Your task to perform on an android device: turn pop-ups on in chrome Image 0: 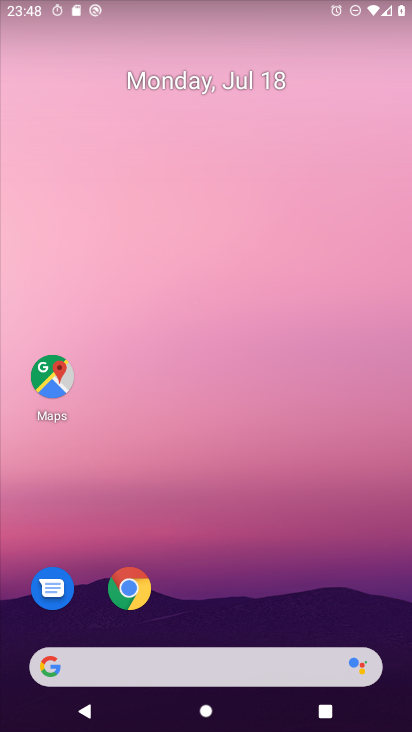
Step 0: press home button
Your task to perform on an android device: turn pop-ups on in chrome Image 1: 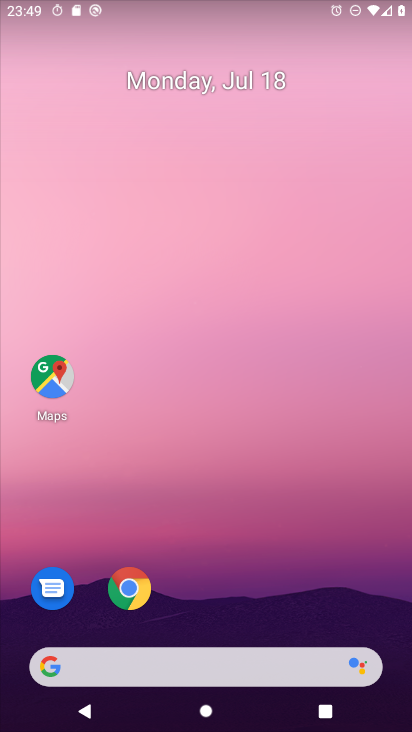
Step 1: click (133, 590)
Your task to perform on an android device: turn pop-ups on in chrome Image 2: 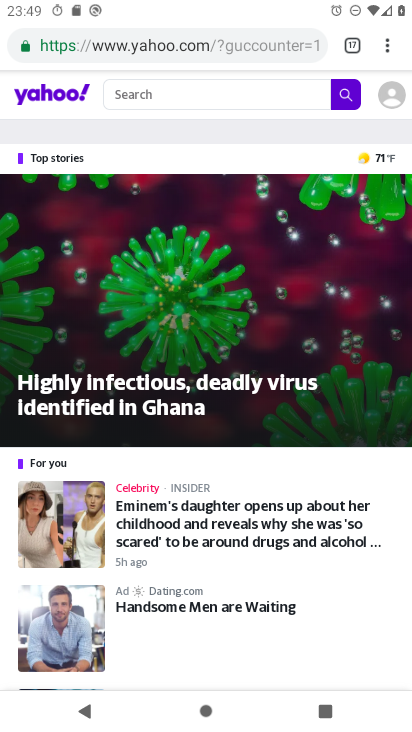
Step 2: drag from (386, 45) to (295, 547)
Your task to perform on an android device: turn pop-ups on in chrome Image 3: 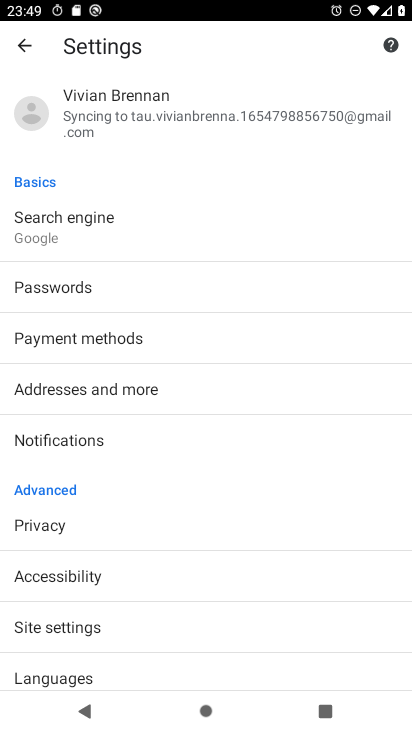
Step 3: click (91, 627)
Your task to perform on an android device: turn pop-ups on in chrome Image 4: 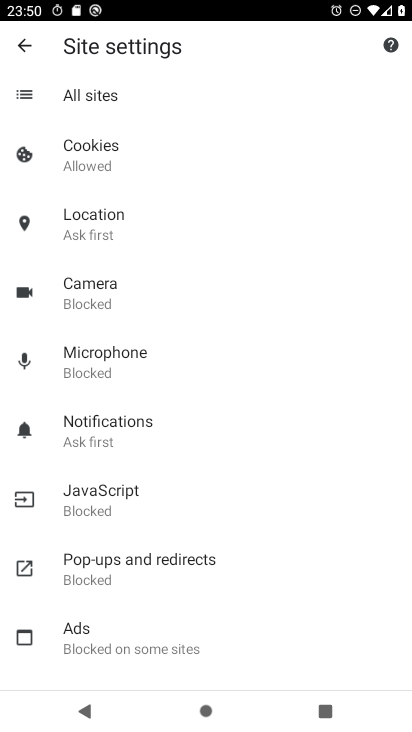
Step 4: click (103, 504)
Your task to perform on an android device: turn pop-ups on in chrome Image 5: 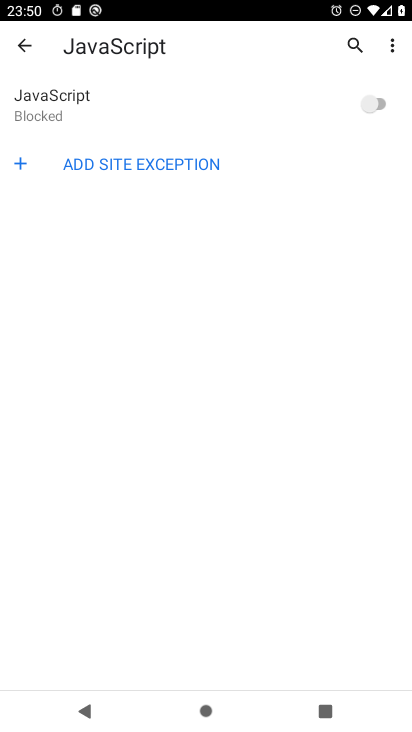
Step 5: click (374, 98)
Your task to perform on an android device: turn pop-ups on in chrome Image 6: 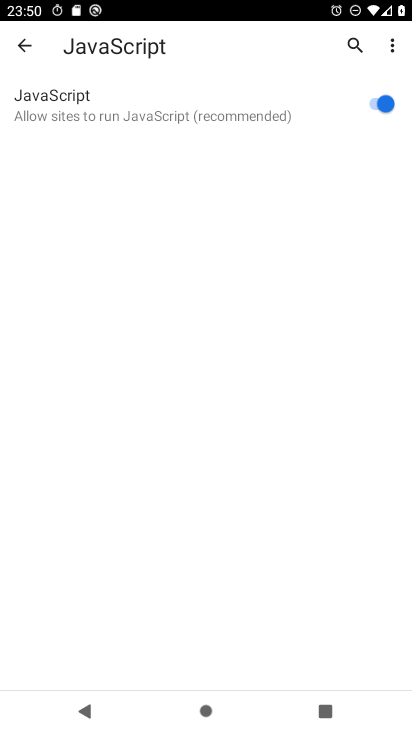
Step 6: task complete